Your task to perform on an android device: change keyboard looks Image 0: 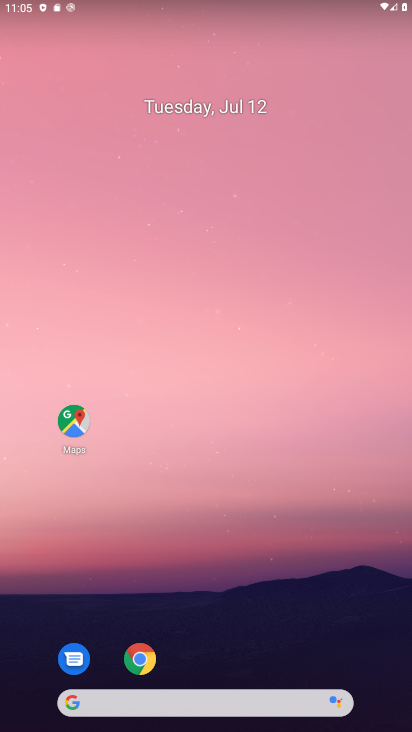
Step 0: drag from (279, 642) to (170, 94)
Your task to perform on an android device: change keyboard looks Image 1: 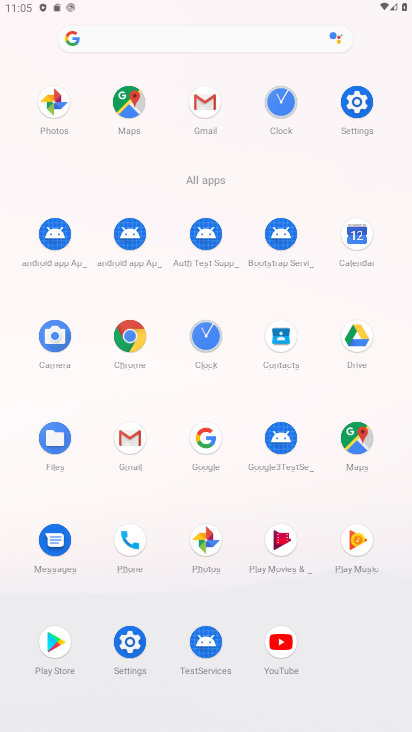
Step 1: click (364, 96)
Your task to perform on an android device: change keyboard looks Image 2: 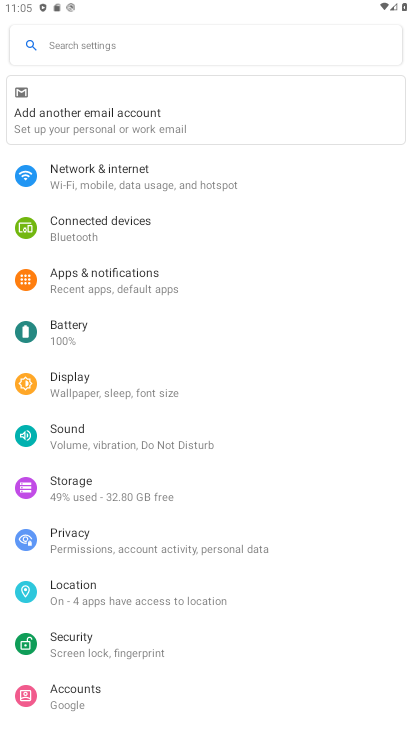
Step 2: drag from (183, 691) to (84, 325)
Your task to perform on an android device: change keyboard looks Image 3: 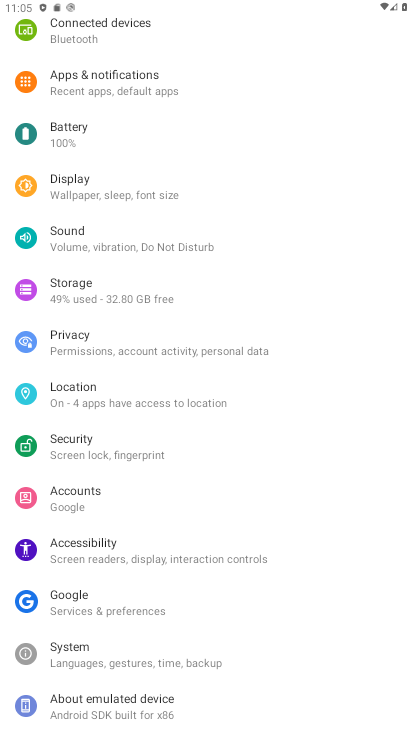
Step 3: click (170, 654)
Your task to perform on an android device: change keyboard looks Image 4: 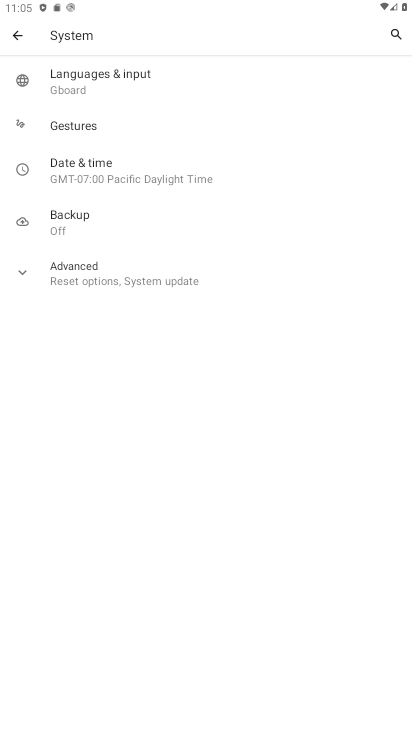
Step 4: click (175, 85)
Your task to perform on an android device: change keyboard looks Image 5: 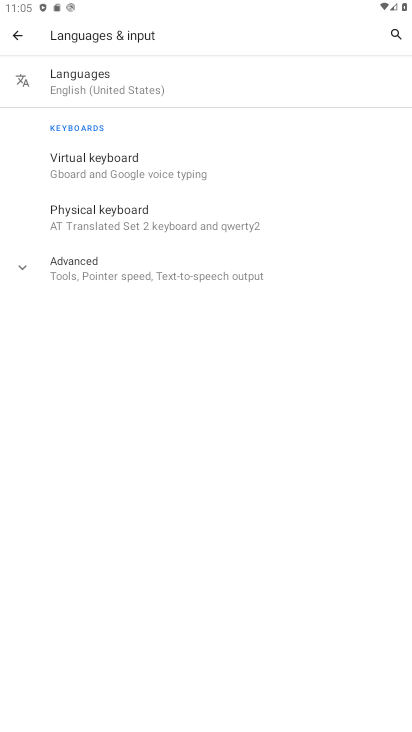
Step 5: click (171, 156)
Your task to perform on an android device: change keyboard looks Image 6: 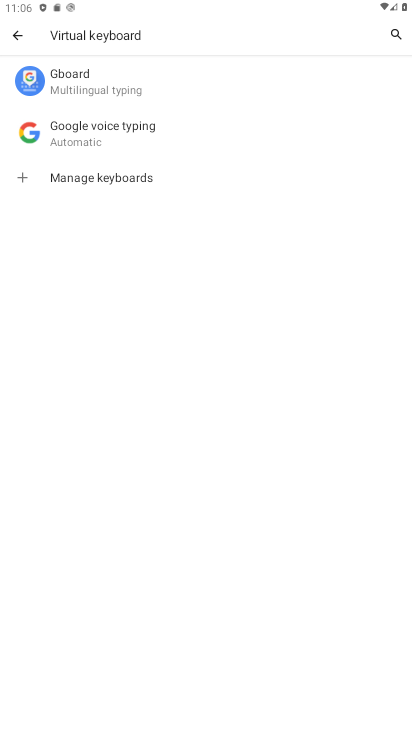
Step 6: click (135, 88)
Your task to perform on an android device: change keyboard looks Image 7: 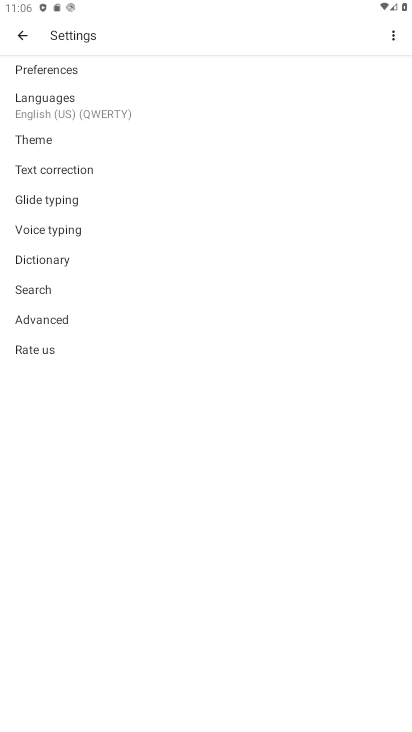
Step 7: click (131, 145)
Your task to perform on an android device: change keyboard looks Image 8: 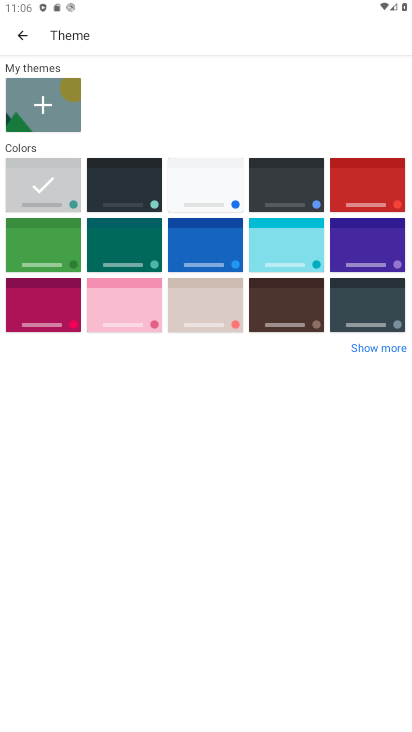
Step 8: click (139, 170)
Your task to perform on an android device: change keyboard looks Image 9: 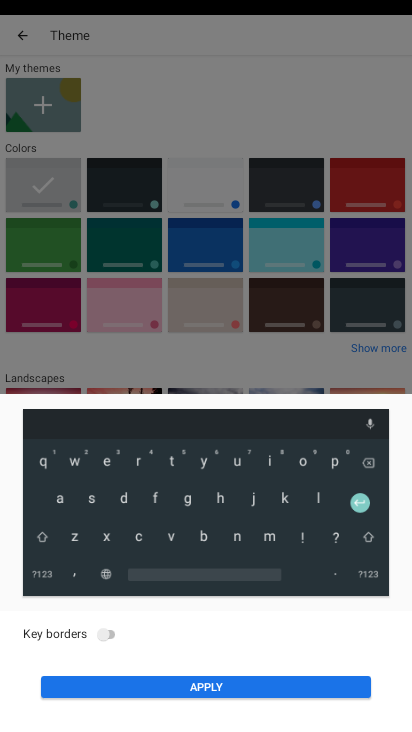
Step 9: click (268, 684)
Your task to perform on an android device: change keyboard looks Image 10: 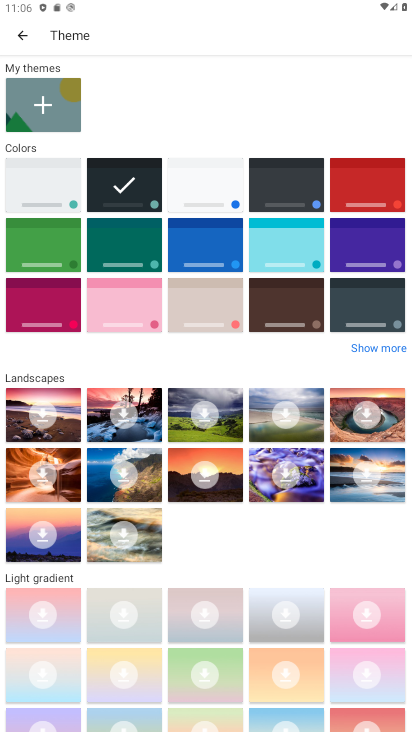
Step 10: task complete